Your task to perform on an android device: turn off priority inbox in the gmail app Image 0: 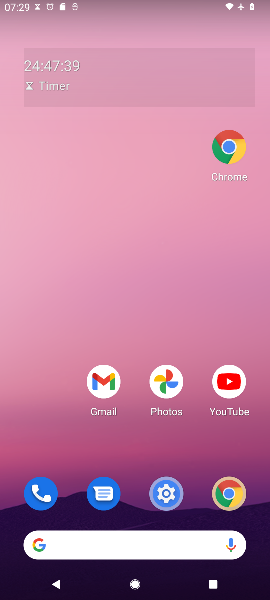
Step 0: press home button
Your task to perform on an android device: turn off priority inbox in the gmail app Image 1: 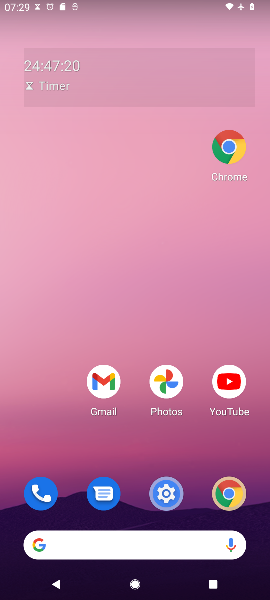
Step 1: click (102, 384)
Your task to perform on an android device: turn off priority inbox in the gmail app Image 2: 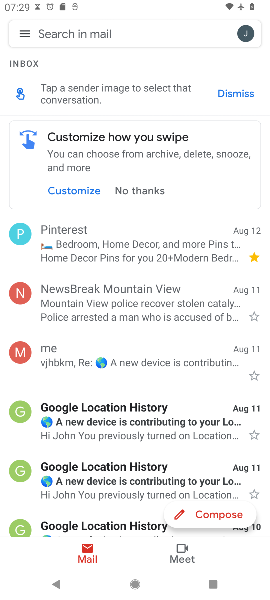
Step 2: click (22, 38)
Your task to perform on an android device: turn off priority inbox in the gmail app Image 3: 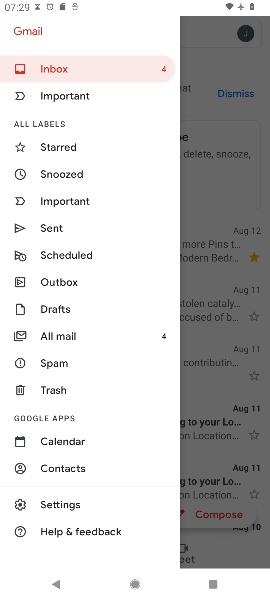
Step 3: click (60, 506)
Your task to perform on an android device: turn off priority inbox in the gmail app Image 4: 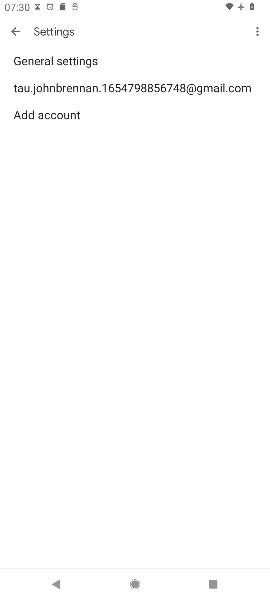
Step 4: click (102, 88)
Your task to perform on an android device: turn off priority inbox in the gmail app Image 5: 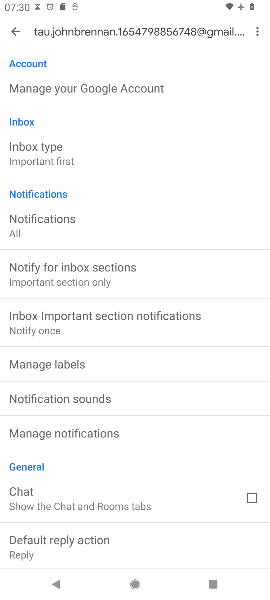
Step 5: click (51, 159)
Your task to perform on an android device: turn off priority inbox in the gmail app Image 6: 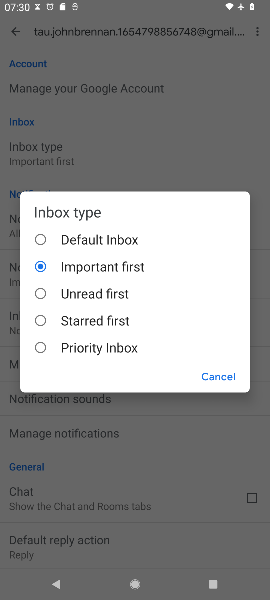
Step 6: task complete